Your task to perform on an android device: Search for Italian restaurants on Maps Image 0: 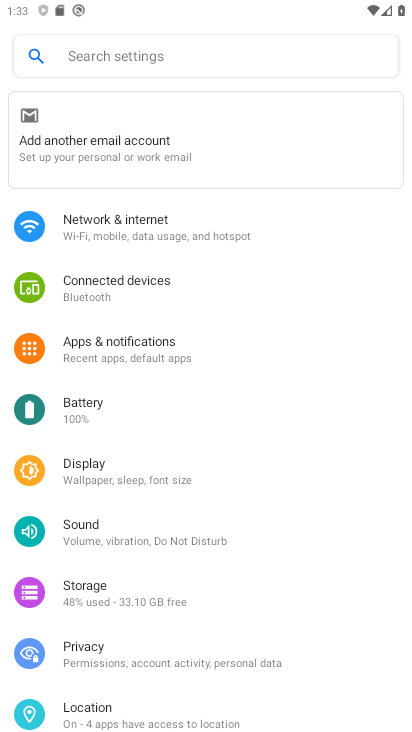
Step 0: press home button
Your task to perform on an android device: Search for Italian restaurants on Maps Image 1: 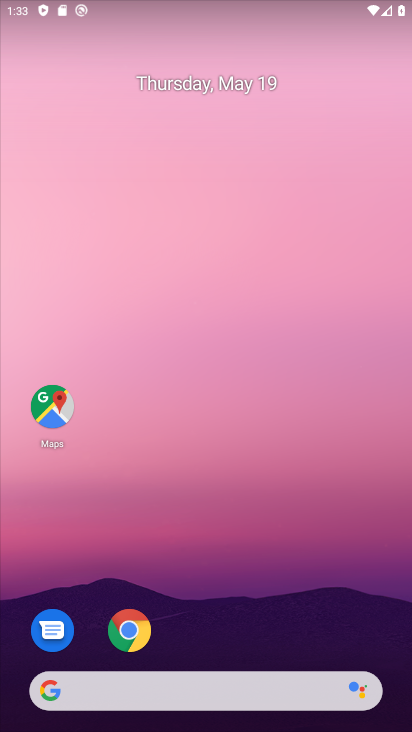
Step 1: click (52, 407)
Your task to perform on an android device: Search for Italian restaurants on Maps Image 2: 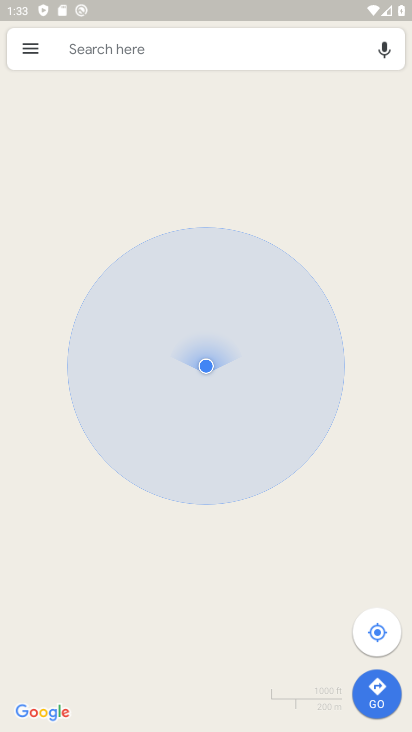
Step 2: click (122, 50)
Your task to perform on an android device: Search for Italian restaurants on Maps Image 3: 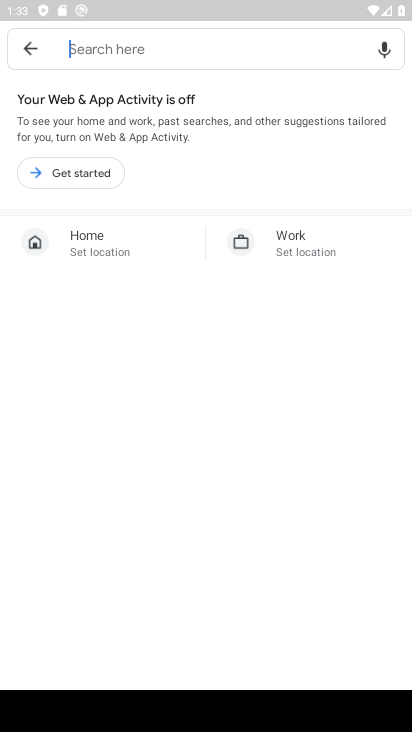
Step 3: click (119, 44)
Your task to perform on an android device: Search for Italian restaurants on Maps Image 4: 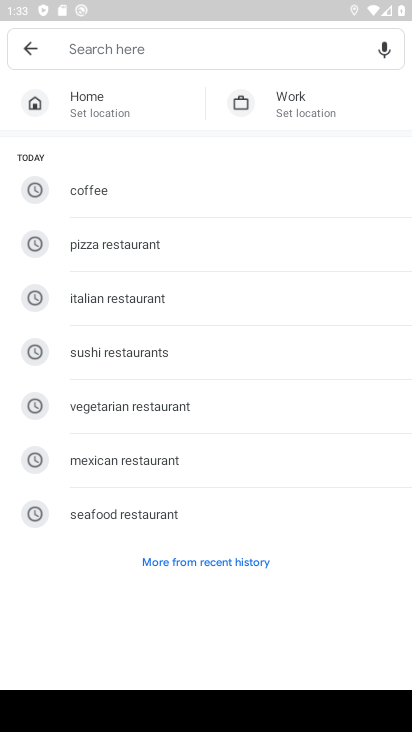
Step 4: type "italian restaurants"
Your task to perform on an android device: Search for Italian restaurants on Maps Image 5: 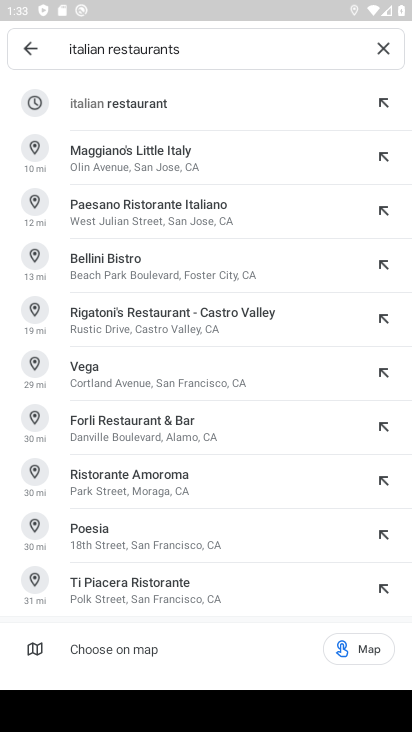
Step 5: click (110, 104)
Your task to perform on an android device: Search for Italian restaurants on Maps Image 6: 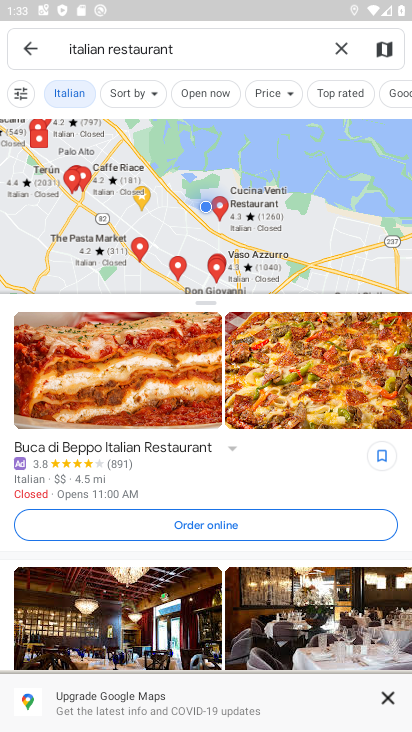
Step 6: task complete